Your task to perform on an android device: Add logitech g933 to the cart on costco, then select checkout. Image 0: 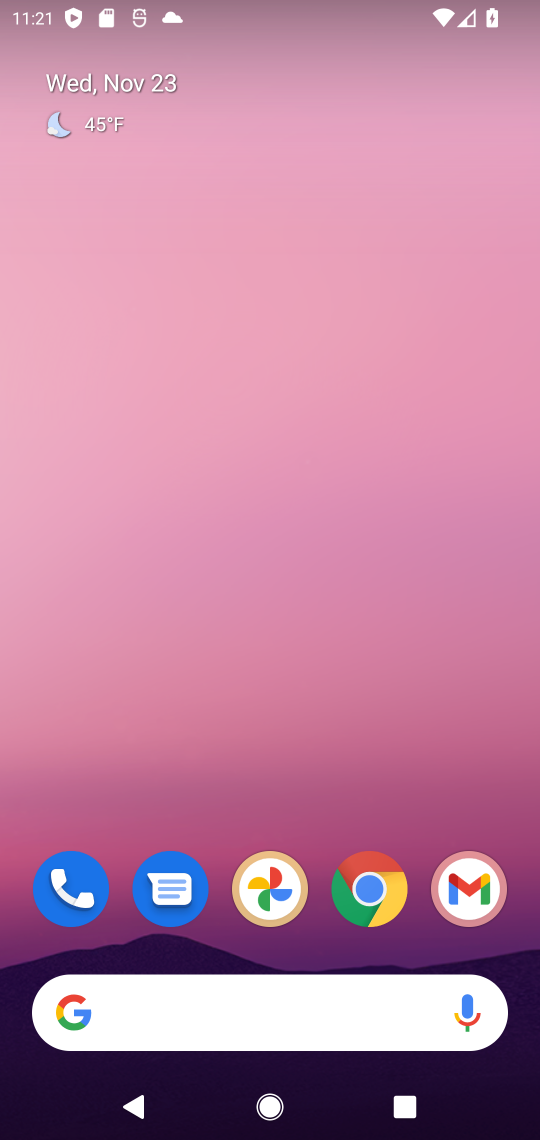
Step 0: click (377, 886)
Your task to perform on an android device: Add logitech g933 to the cart on costco, then select checkout. Image 1: 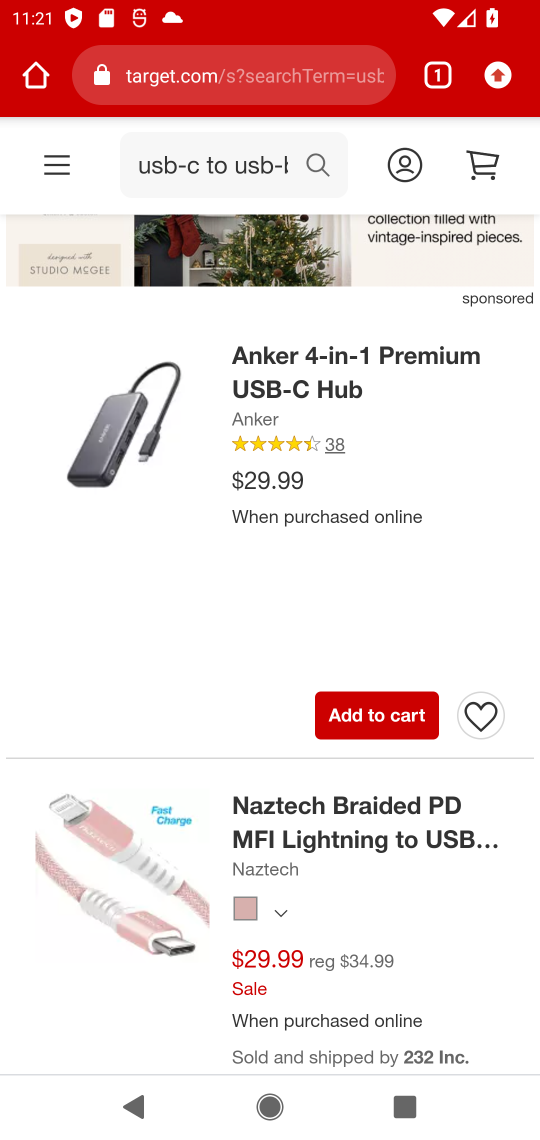
Step 1: click (229, 71)
Your task to perform on an android device: Add logitech g933 to the cart on costco, then select checkout. Image 2: 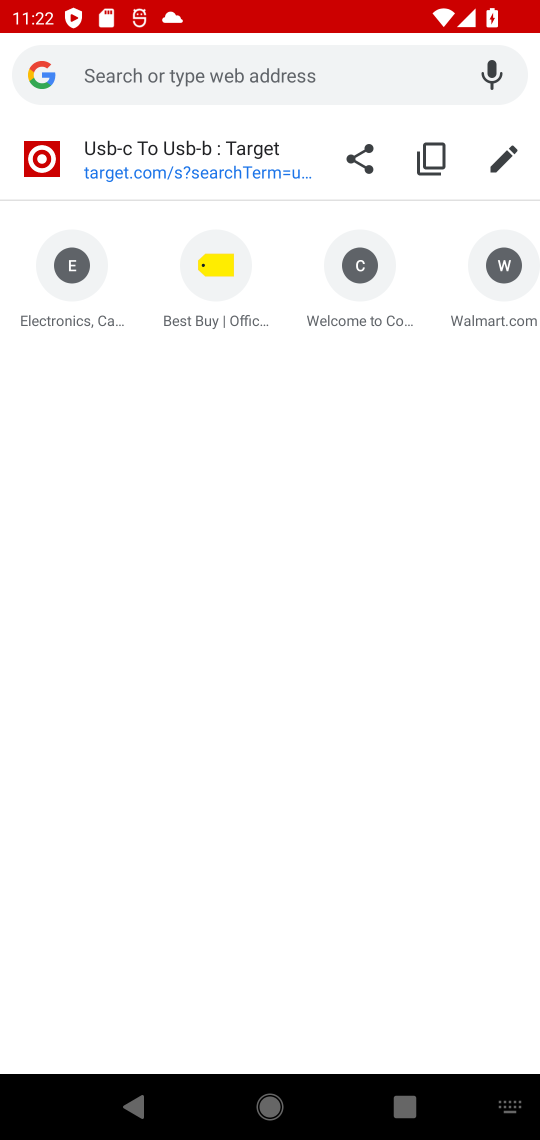
Step 2: type "costco.com"
Your task to perform on an android device: Add logitech g933 to the cart on costco, then select checkout. Image 3: 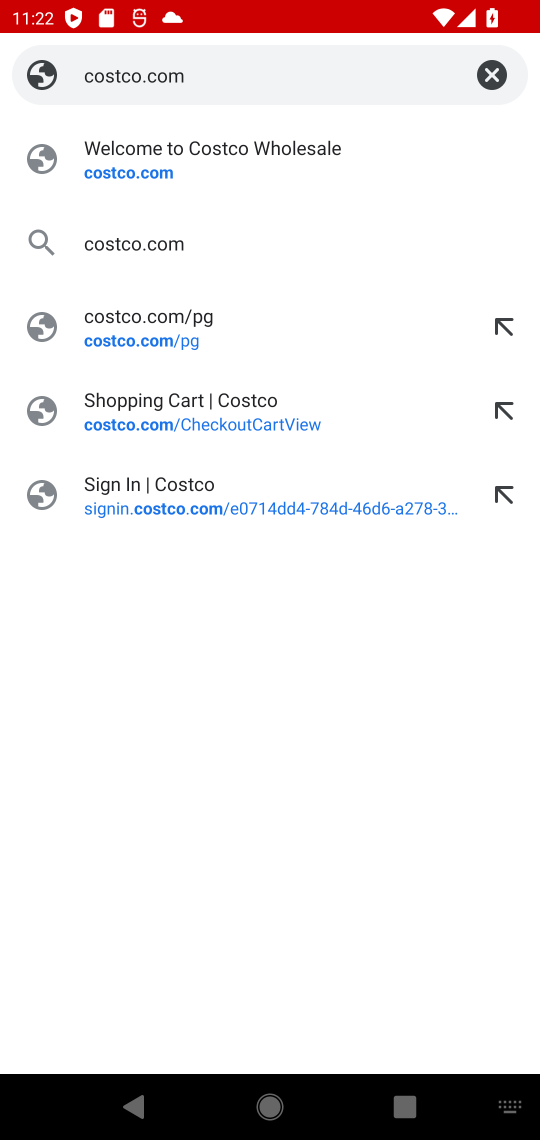
Step 3: click (129, 166)
Your task to perform on an android device: Add logitech g933 to the cart on costco, then select checkout. Image 4: 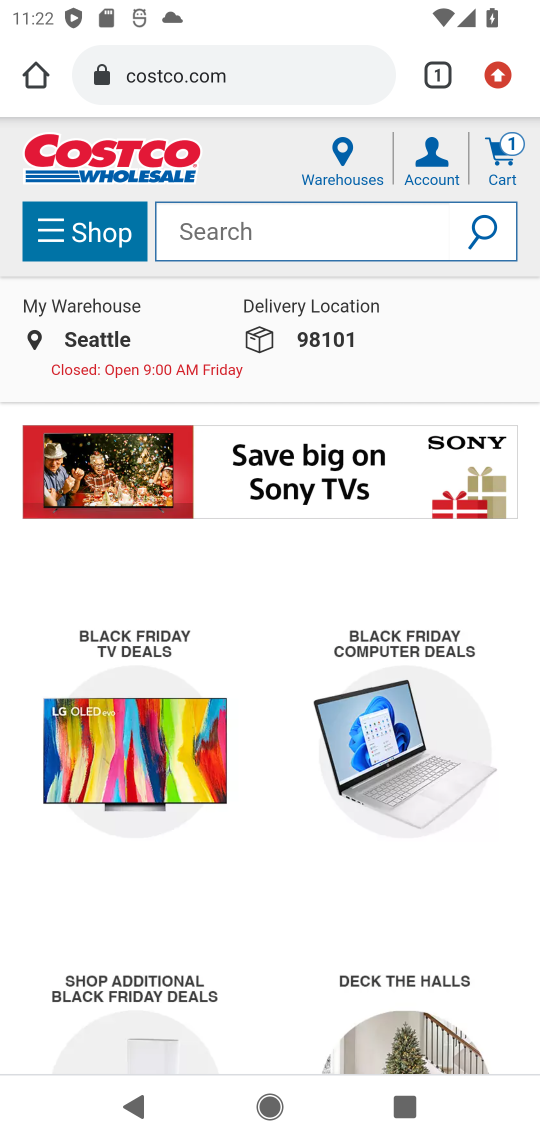
Step 4: click (237, 234)
Your task to perform on an android device: Add logitech g933 to the cart on costco, then select checkout. Image 5: 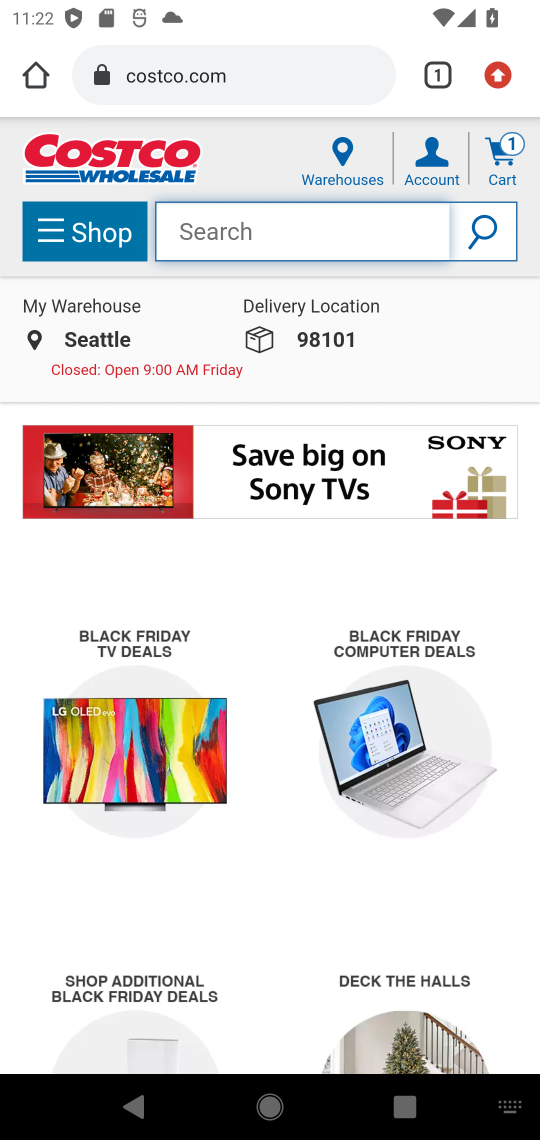
Step 5: type " logitech g933"
Your task to perform on an android device: Add logitech g933 to the cart on costco, then select checkout. Image 6: 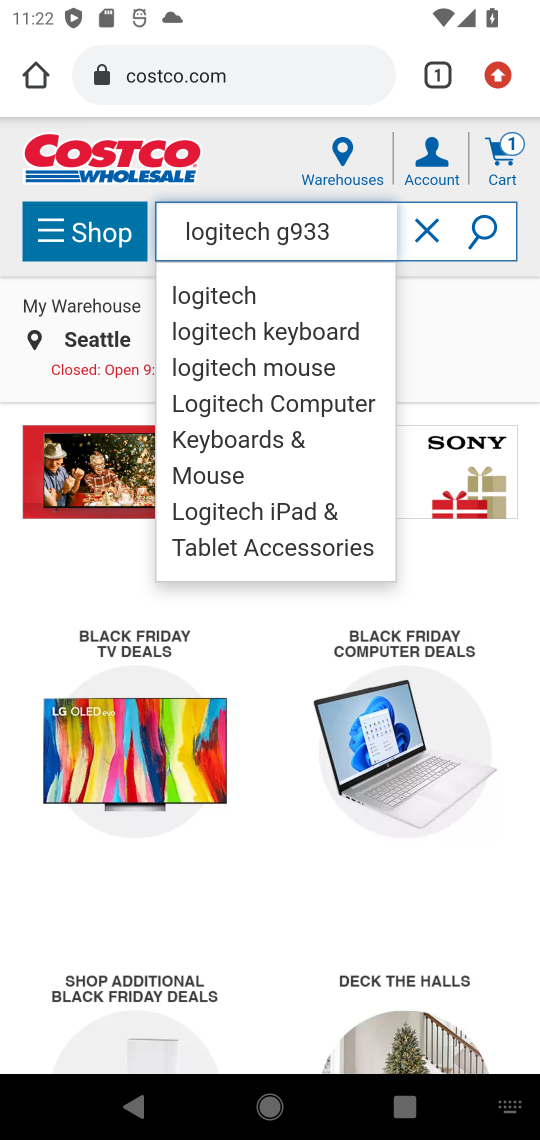
Step 6: click (476, 233)
Your task to perform on an android device: Add logitech g933 to the cart on costco, then select checkout. Image 7: 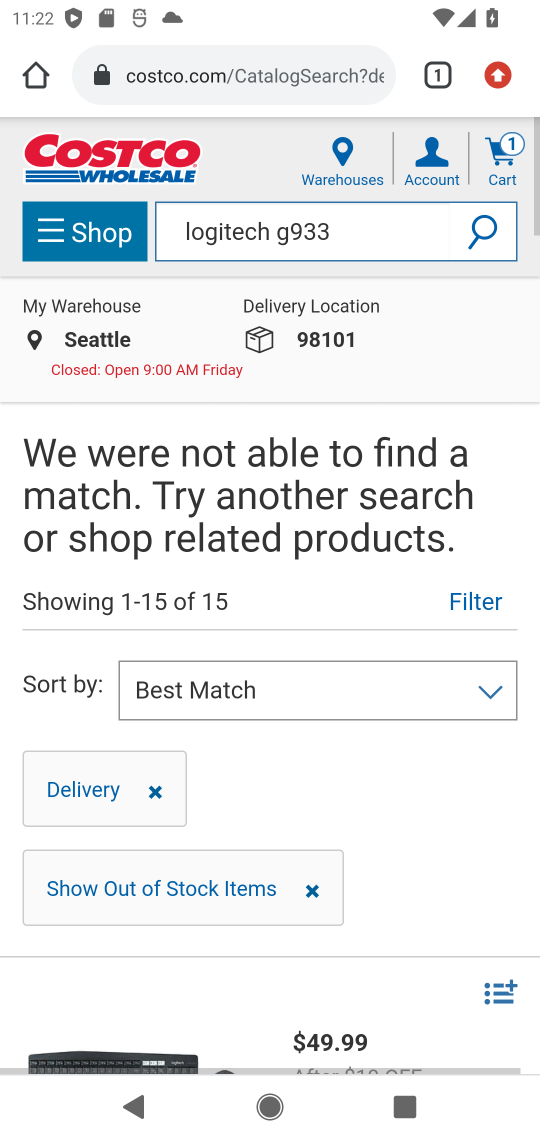
Step 7: task complete